Your task to perform on an android device: refresh tabs in the chrome app Image 0: 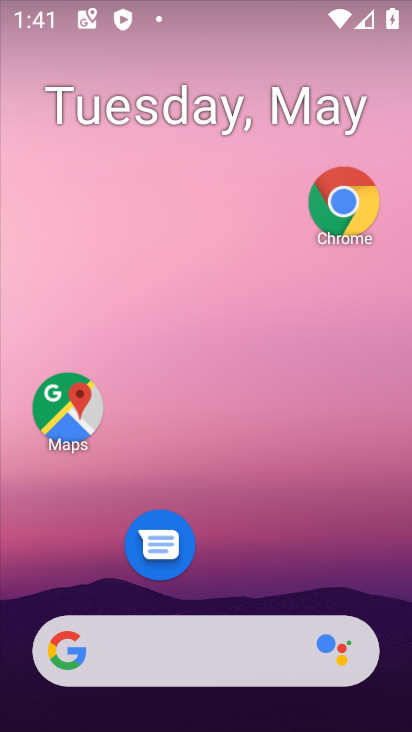
Step 0: click (351, 200)
Your task to perform on an android device: refresh tabs in the chrome app Image 1: 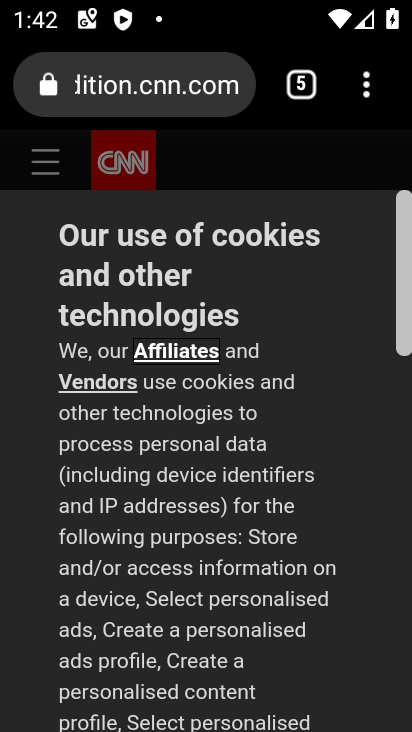
Step 1: click (371, 95)
Your task to perform on an android device: refresh tabs in the chrome app Image 2: 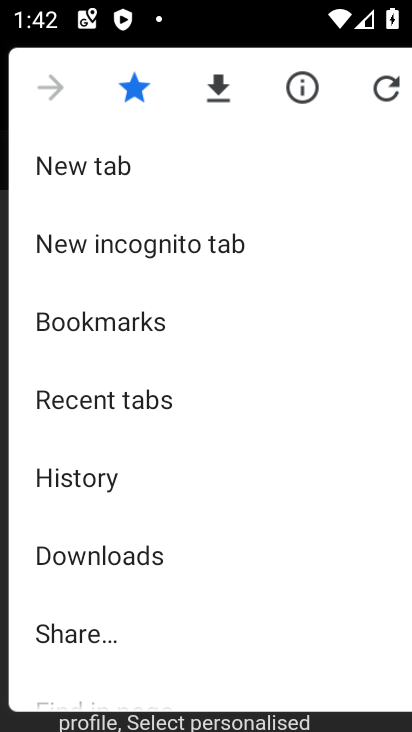
Step 2: click (369, 94)
Your task to perform on an android device: refresh tabs in the chrome app Image 3: 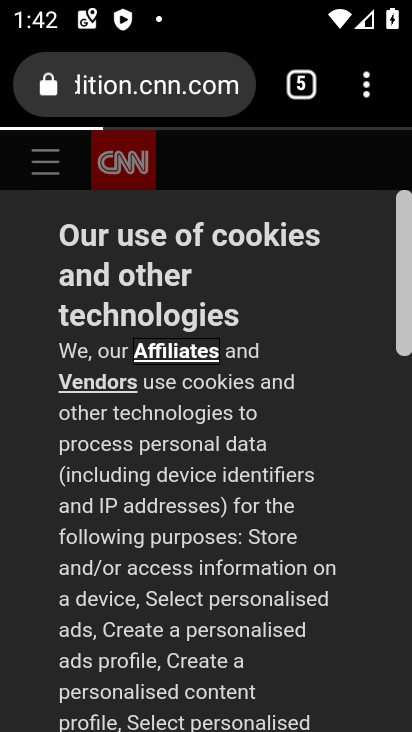
Step 3: task complete